Your task to perform on an android device: What's the weather? Image 0: 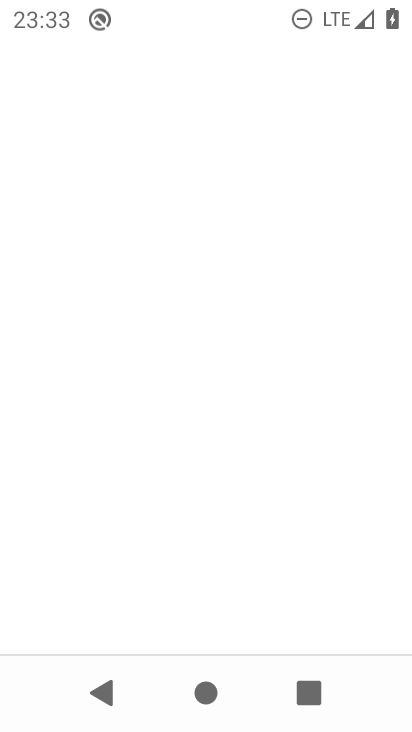
Step 0: drag from (224, 559) to (206, 54)
Your task to perform on an android device: What's the weather? Image 1: 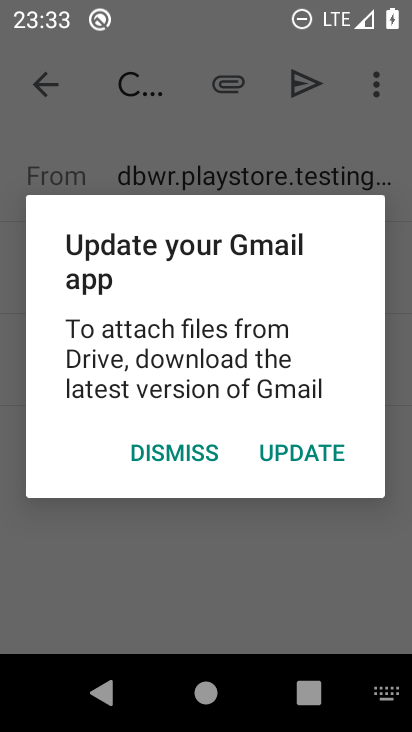
Step 1: press home button
Your task to perform on an android device: What's the weather? Image 2: 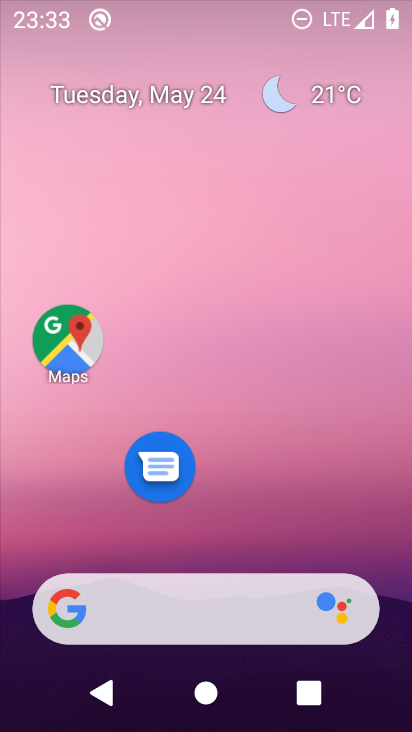
Step 2: drag from (194, 556) to (224, 55)
Your task to perform on an android device: What's the weather? Image 3: 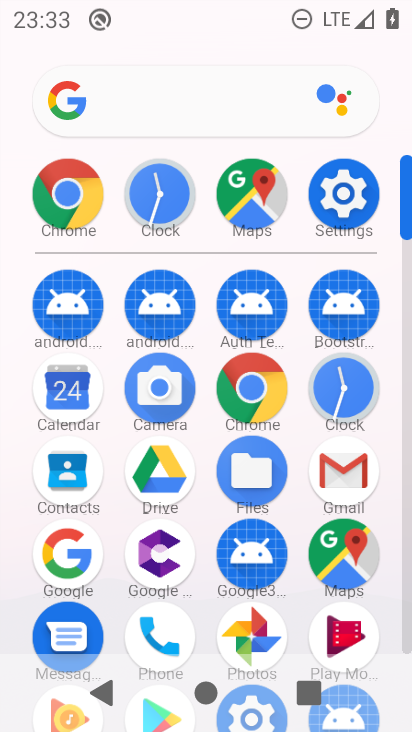
Step 3: click (157, 205)
Your task to perform on an android device: What's the weather? Image 4: 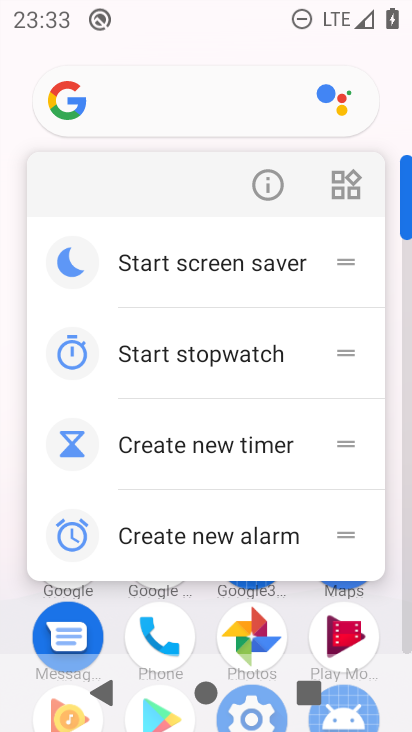
Step 4: click (219, 94)
Your task to perform on an android device: What's the weather? Image 5: 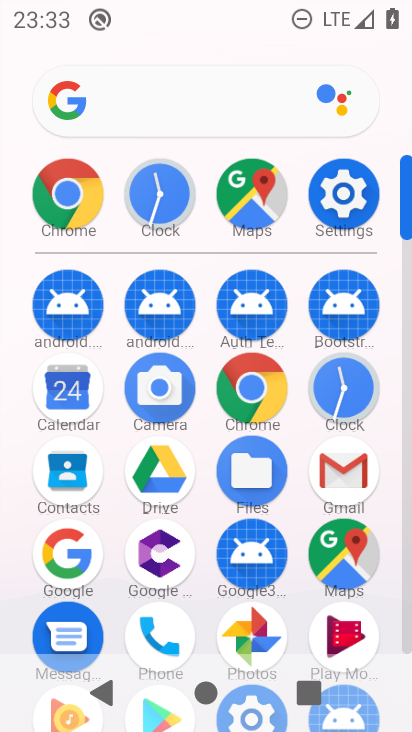
Step 5: click (143, 111)
Your task to perform on an android device: What's the weather? Image 6: 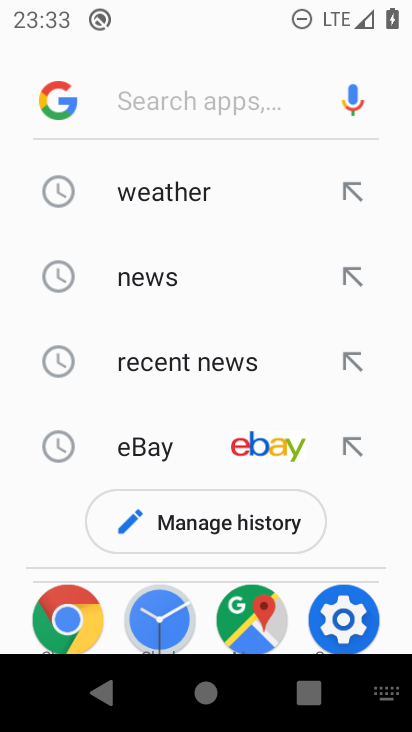
Step 6: click (144, 212)
Your task to perform on an android device: What's the weather? Image 7: 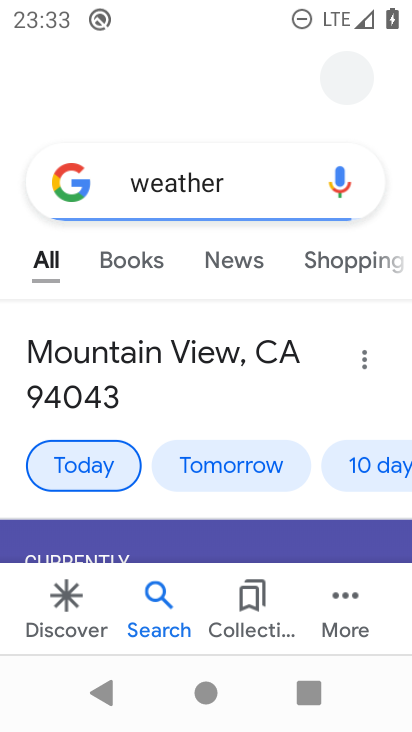
Step 7: drag from (194, 473) to (196, 211)
Your task to perform on an android device: What's the weather? Image 8: 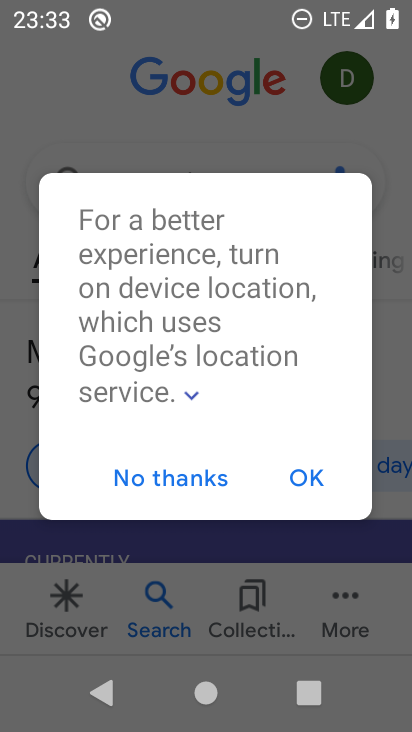
Step 8: click (318, 495)
Your task to perform on an android device: What's the weather? Image 9: 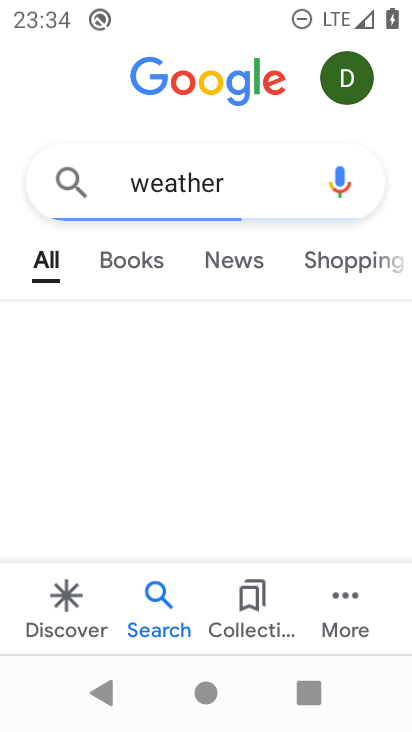
Step 9: task complete